Your task to perform on an android device: add a contact Image 0: 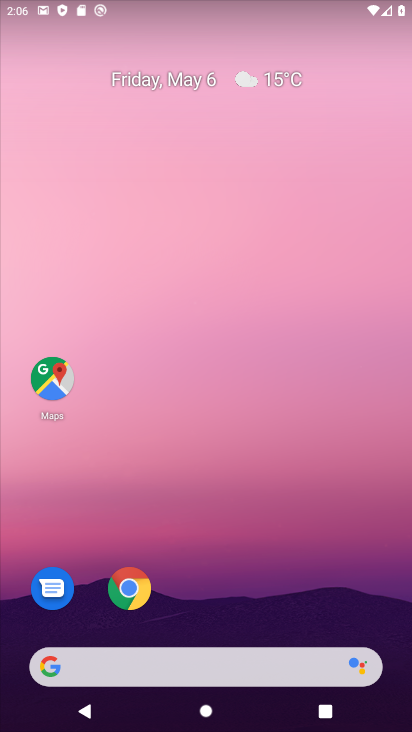
Step 0: drag from (251, 623) to (221, 16)
Your task to perform on an android device: add a contact Image 1: 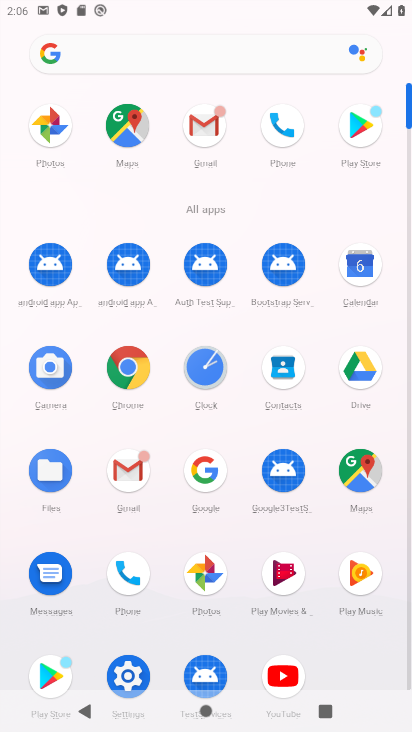
Step 1: click (283, 142)
Your task to perform on an android device: add a contact Image 2: 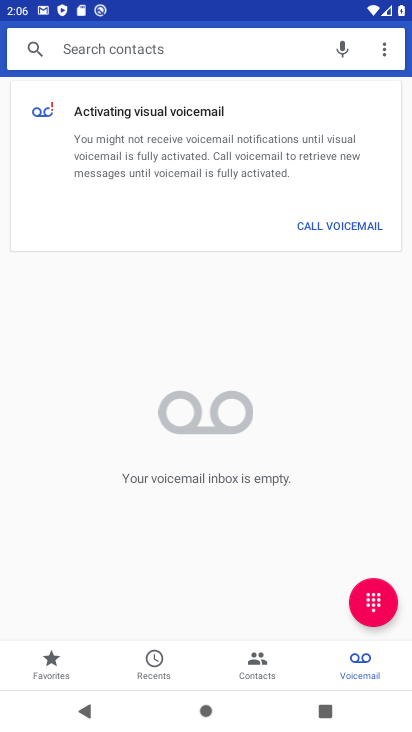
Step 2: click (261, 658)
Your task to perform on an android device: add a contact Image 3: 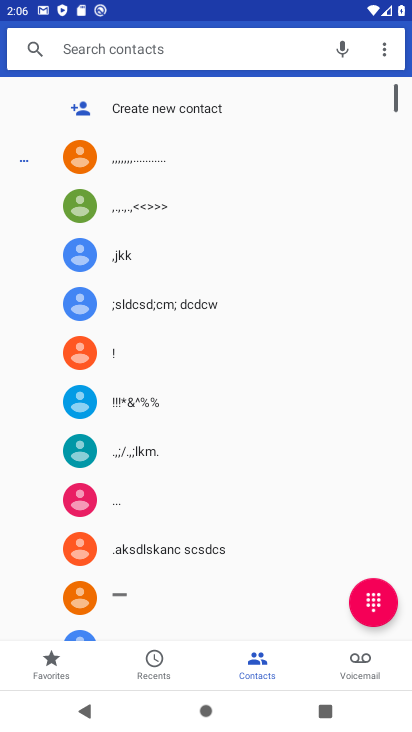
Step 3: click (173, 100)
Your task to perform on an android device: add a contact Image 4: 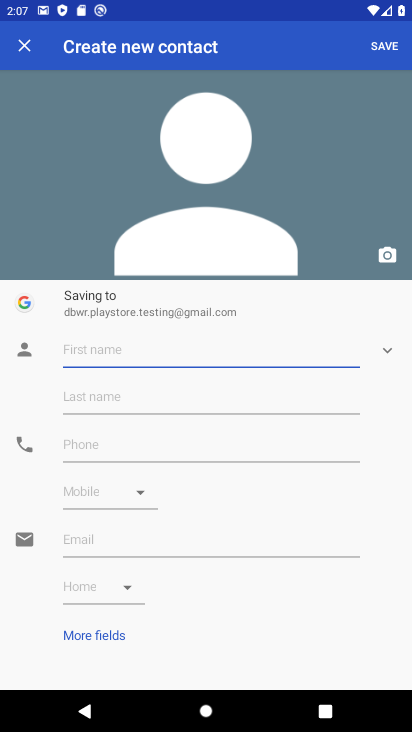
Step 4: type "jiio"
Your task to perform on an android device: add a contact Image 5: 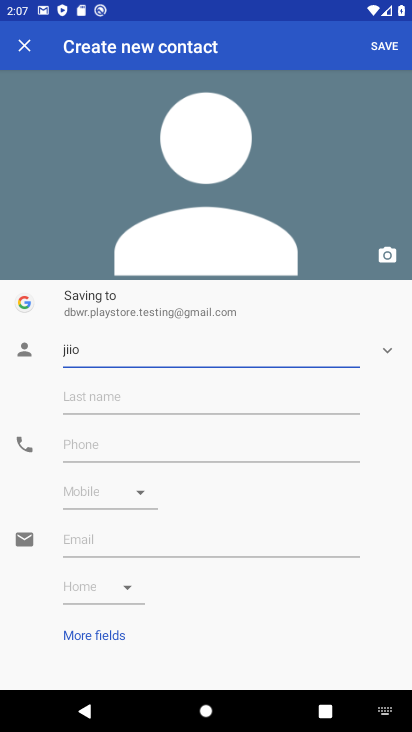
Step 5: click (248, 434)
Your task to perform on an android device: add a contact Image 6: 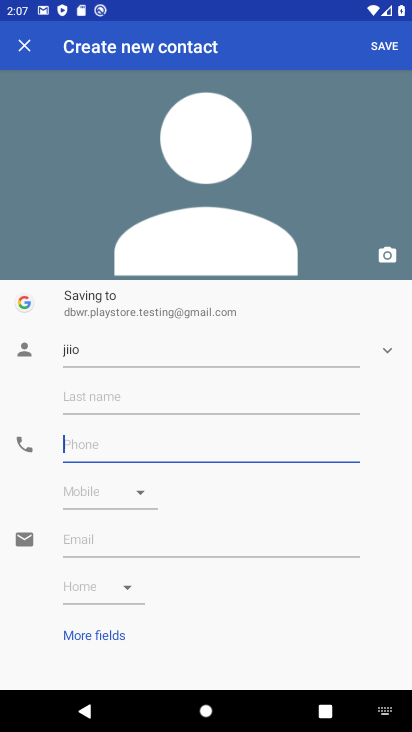
Step 6: type "9778"
Your task to perform on an android device: add a contact Image 7: 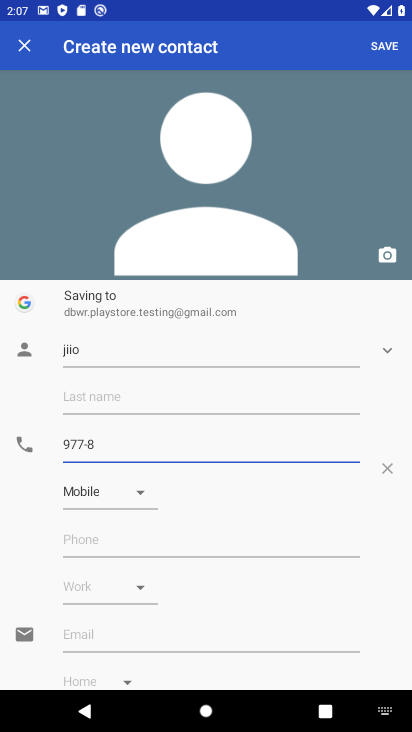
Step 7: click (380, 35)
Your task to perform on an android device: add a contact Image 8: 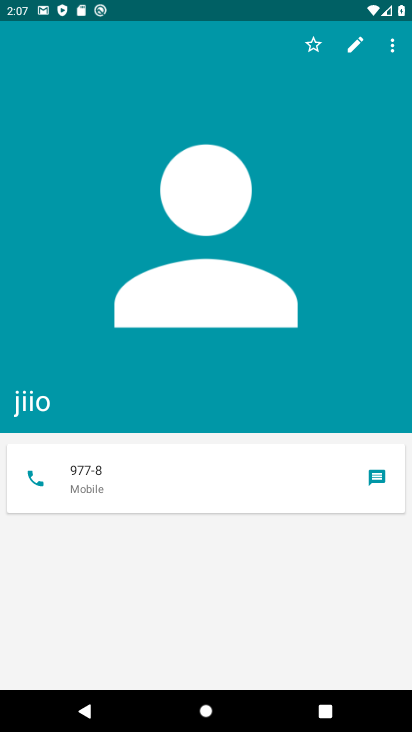
Step 8: task complete